Your task to perform on an android device: create a new album in the google photos Image 0: 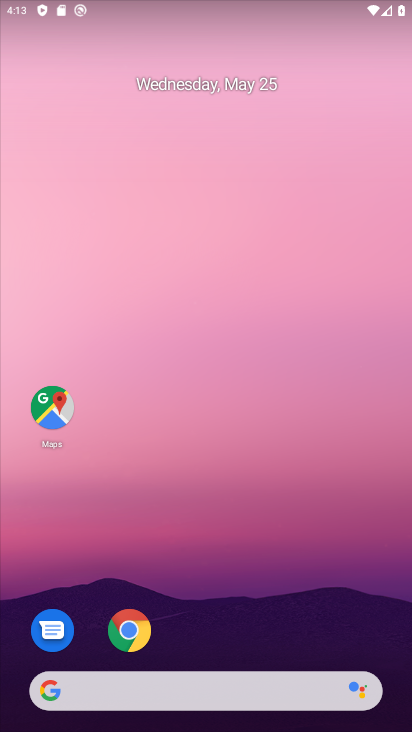
Step 0: drag from (232, 598) to (285, 109)
Your task to perform on an android device: create a new album in the google photos Image 1: 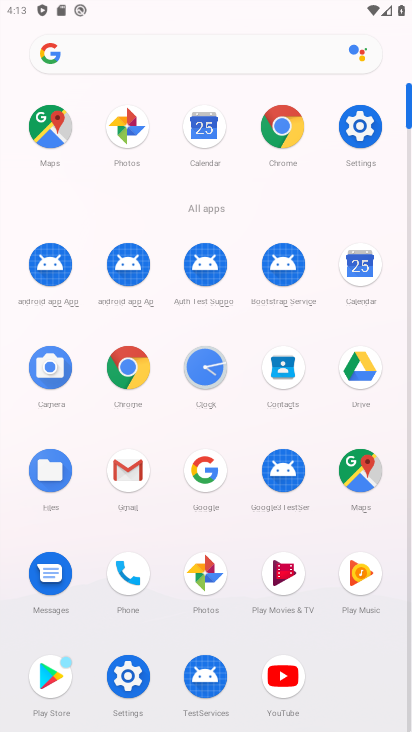
Step 1: click (208, 570)
Your task to perform on an android device: create a new album in the google photos Image 2: 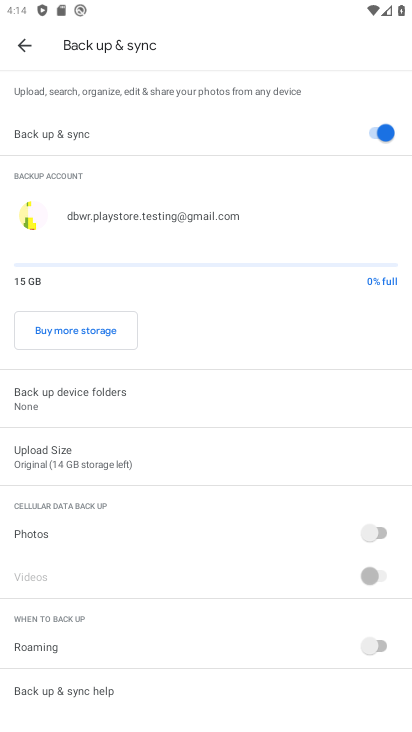
Step 2: click (17, 39)
Your task to perform on an android device: create a new album in the google photos Image 3: 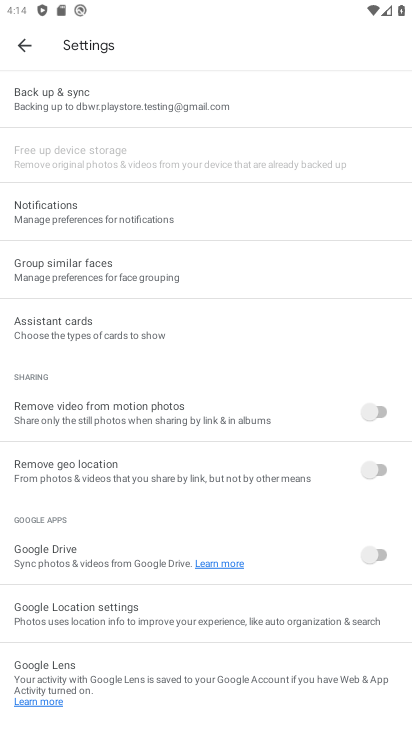
Step 3: click (21, 41)
Your task to perform on an android device: create a new album in the google photos Image 4: 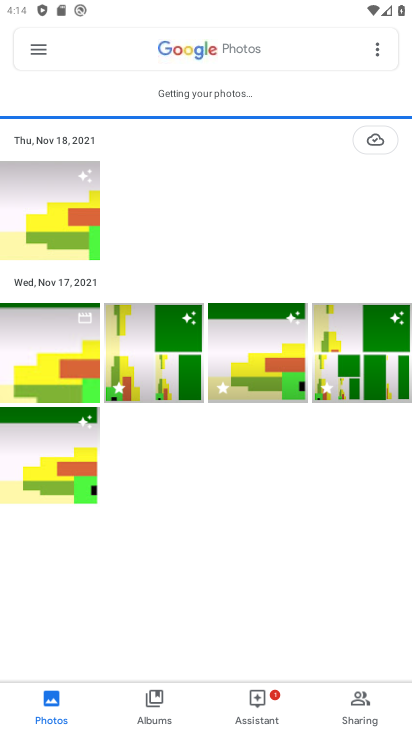
Step 4: click (148, 710)
Your task to perform on an android device: create a new album in the google photos Image 5: 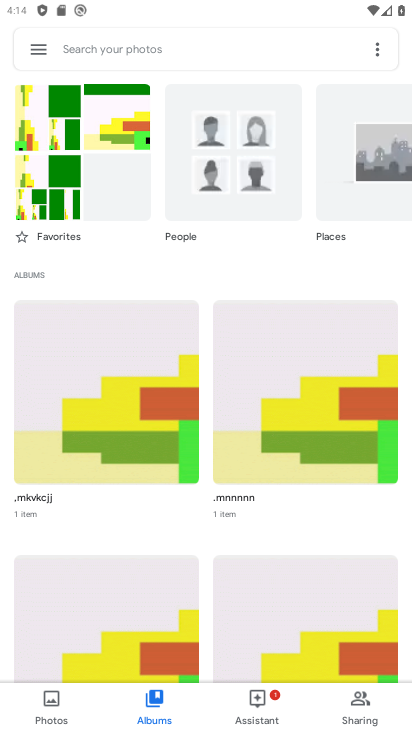
Step 5: click (375, 42)
Your task to perform on an android device: create a new album in the google photos Image 6: 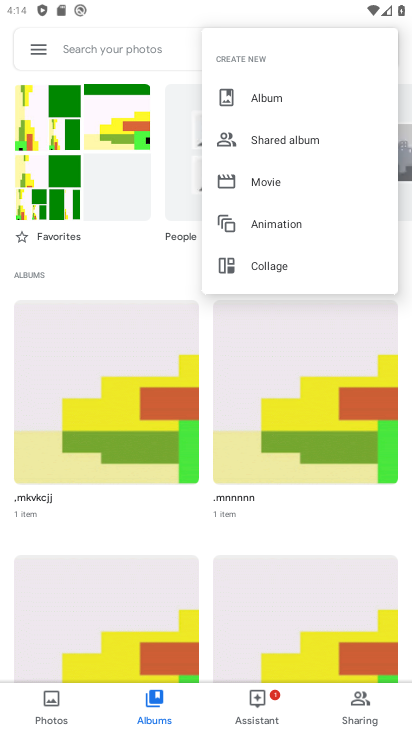
Step 6: click (264, 92)
Your task to perform on an android device: create a new album in the google photos Image 7: 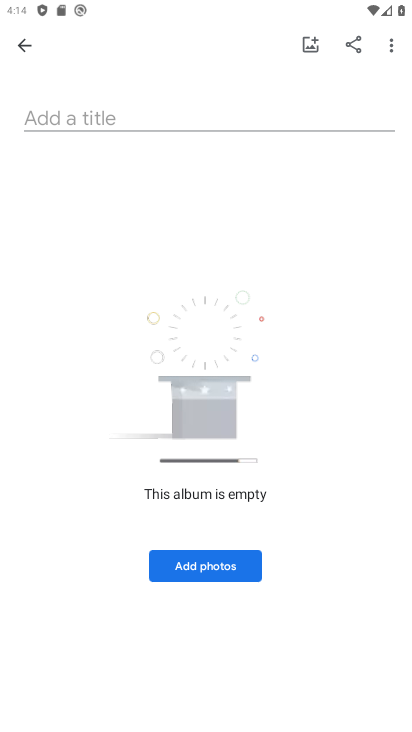
Step 7: click (130, 116)
Your task to perform on an android device: create a new album in the google photos Image 8: 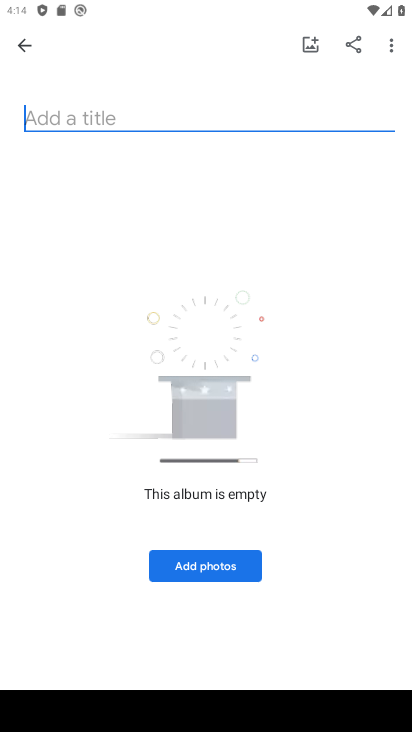
Step 8: type "bhbh"
Your task to perform on an android device: create a new album in the google photos Image 9: 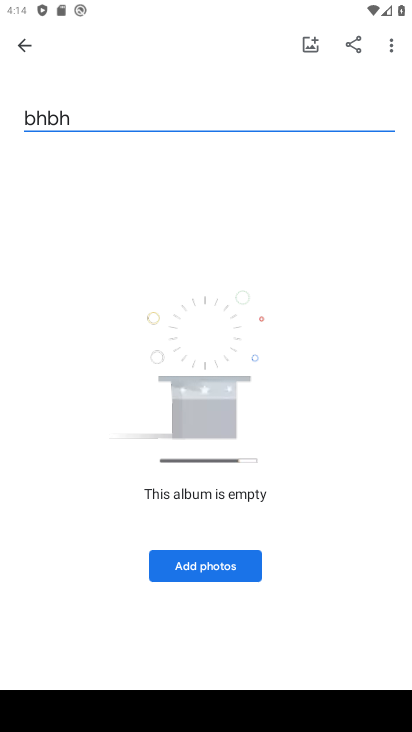
Step 9: click (167, 574)
Your task to perform on an android device: create a new album in the google photos Image 10: 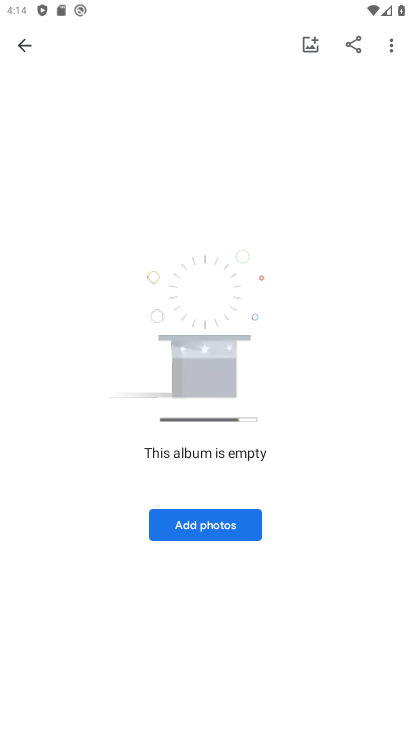
Step 10: click (183, 544)
Your task to perform on an android device: create a new album in the google photos Image 11: 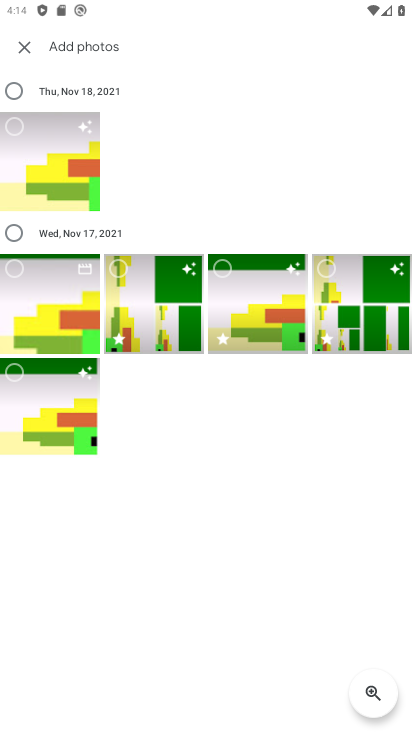
Step 11: click (15, 85)
Your task to perform on an android device: create a new album in the google photos Image 12: 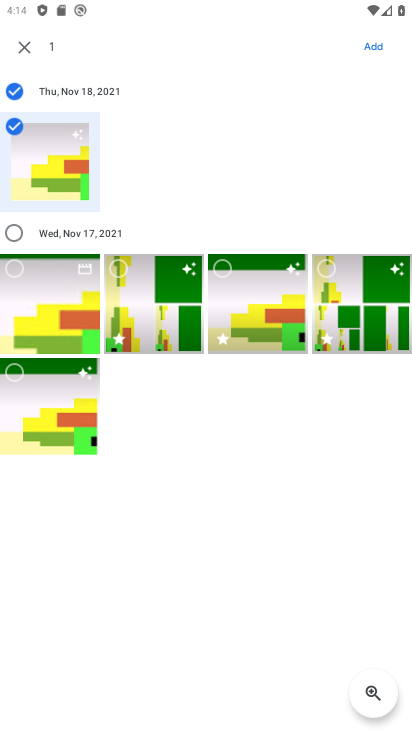
Step 12: click (12, 230)
Your task to perform on an android device: create a new album in the google photos Image 13: 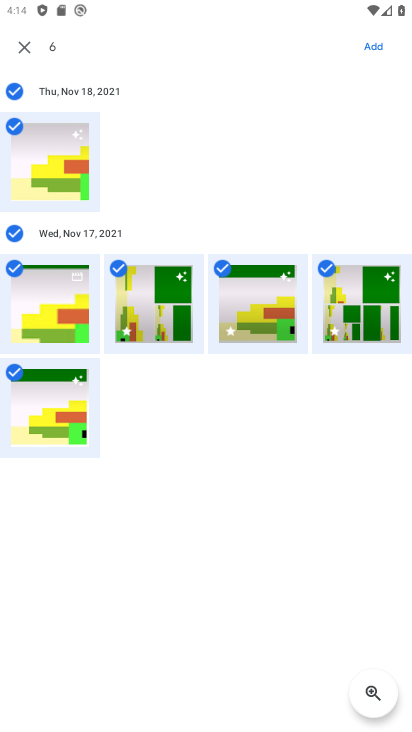
Step 13: click (380, 52)
Your task to perform on an android device: create a new album in the google photos Image 14: 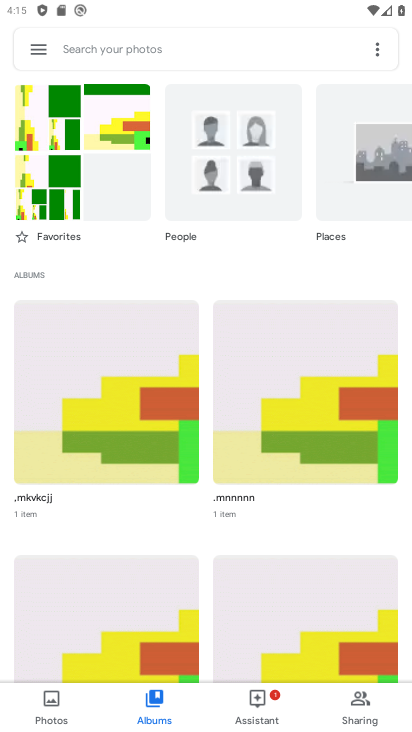
Step 14: task complete